Your task to perform on an android device: See recent photos Image 0: 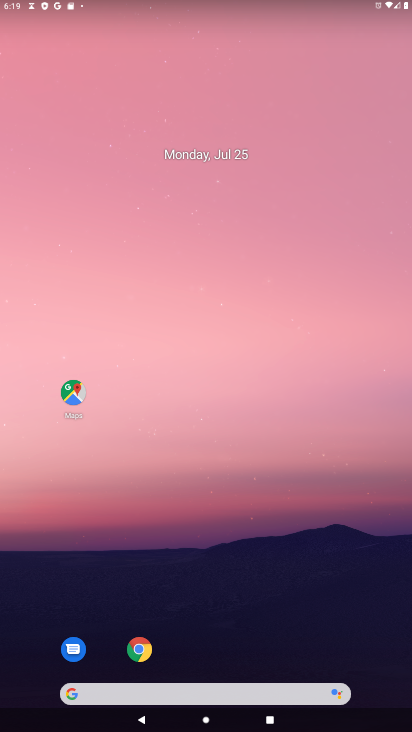
Step 0: drag from (231, 669) to (315, 74)
Your task to perform on an android device: See recent photos Image 1: 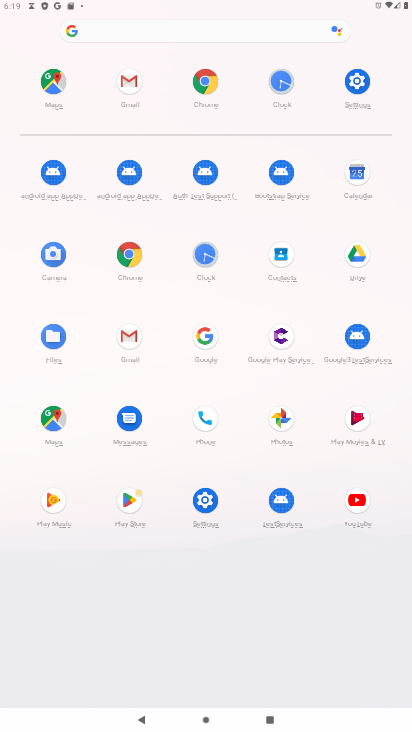
Step 1: click (265, 416)
Your task to perform on an android device: See recent photos Image 2: 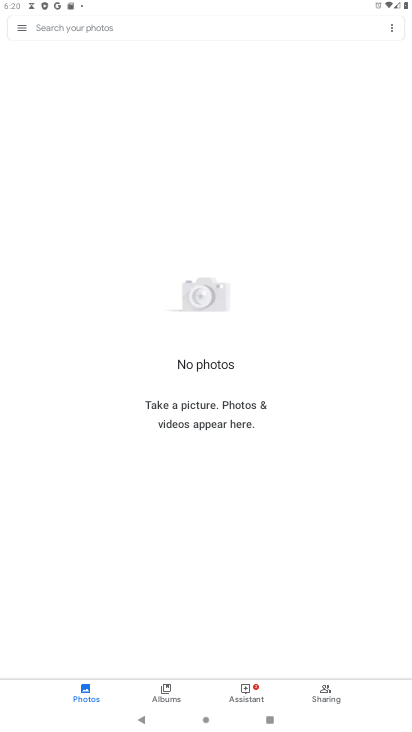
Step 2: task complete